Your task to perform on an android device: Do I have any events today? Image 0: 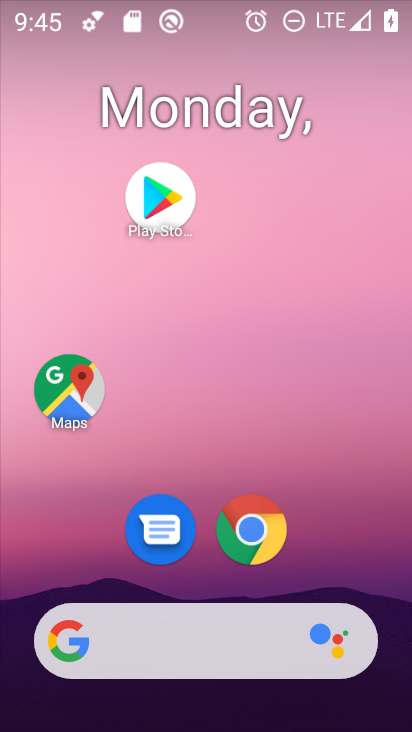
Step 0: drag from (306, 539) to (155, 43)
Your task to perform on an android device: Do I have any events today? Image 1: 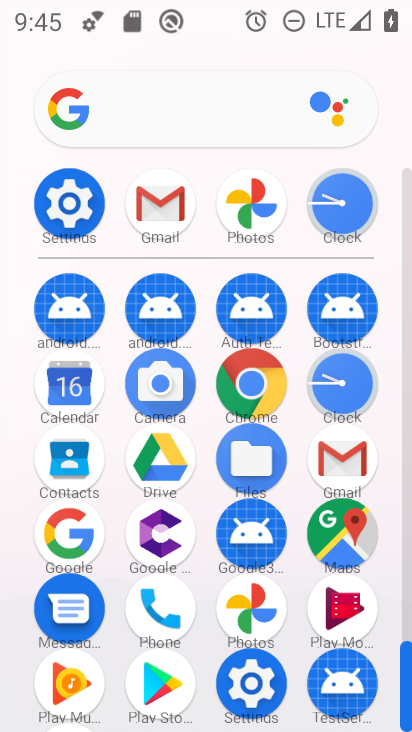
Step 1: click (58, 384)
Your task to perform on an android device: Do I have any events today? Image 2: 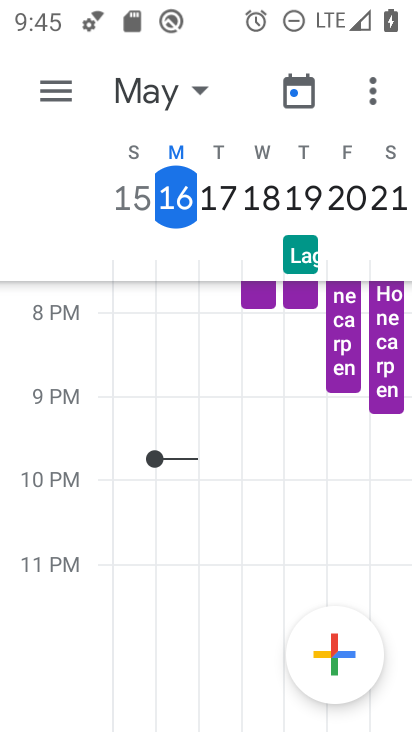
Step 2: click (177, 203)
Your task to perform on an android device: Do I have any events today? Image 3: 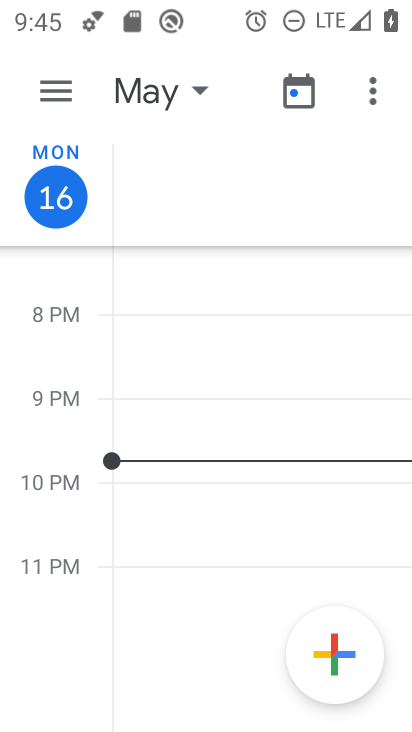
Step 3: task complete